Your task to perform on an android device: Clear the shopping cart on ebay.com. Search for "razer huntsman" on ebay.com, select the first entry, add it to the cart, then select checkout. Image 0: 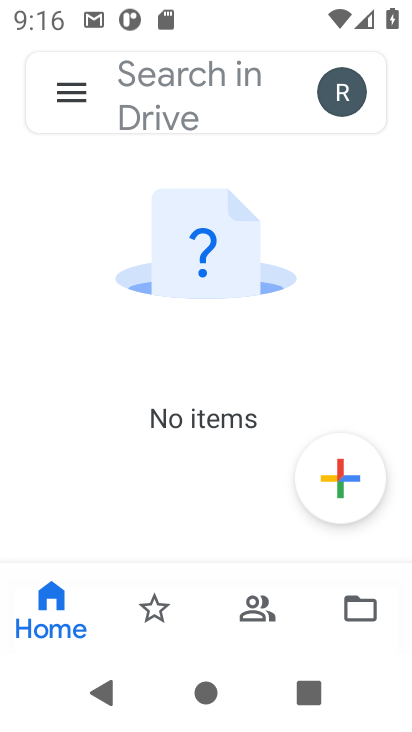
Step 0: press home button
Your task to perform on an android device: Clear the shopping cart on ebay.com. Search for "razer huntsman" on ebay.com, select the first entry, add it to the cart, then select checkout. Image 1: 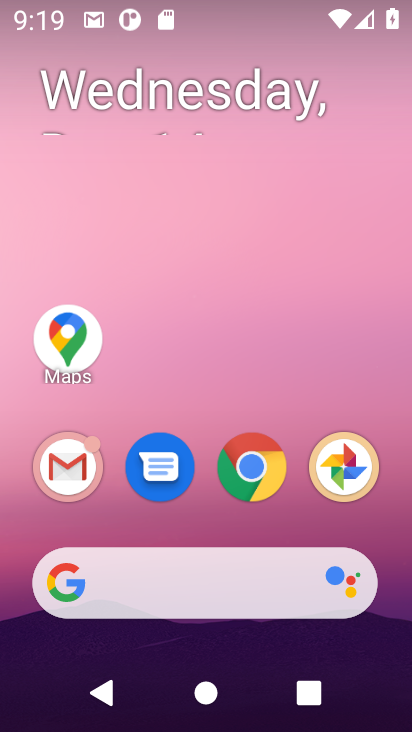
Step 1: task complete